Your task to perform on an android device: Search for razer kraken on newegg, select the first entry, and add it to the cart. Image 0: 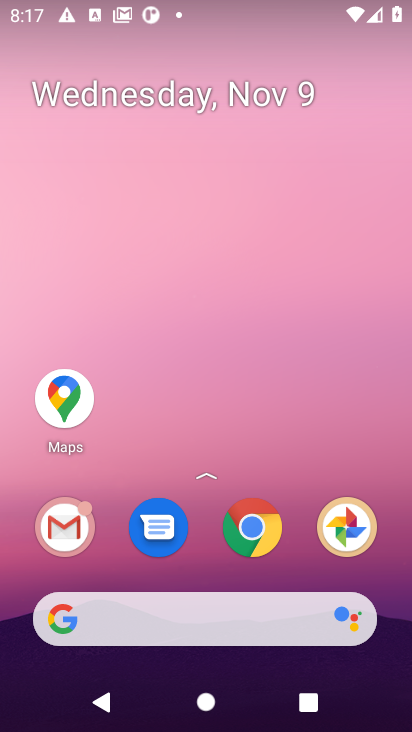
Step 0: click (249, 525)
Your task to perform on an android device: Search for razer kraken on newegg, select the first entry, and add it to the cart. Image 1: 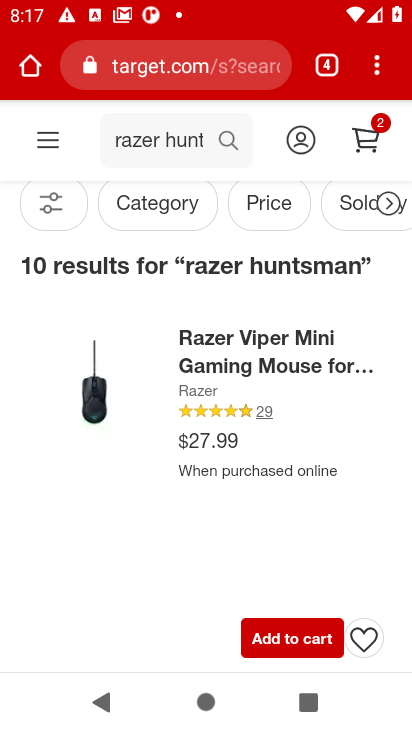
Step 1: click (142, 70)
Your task to perform on an android device: Search for razer kraken on newegg, select the first entry, and add it to the cart. Image 2: 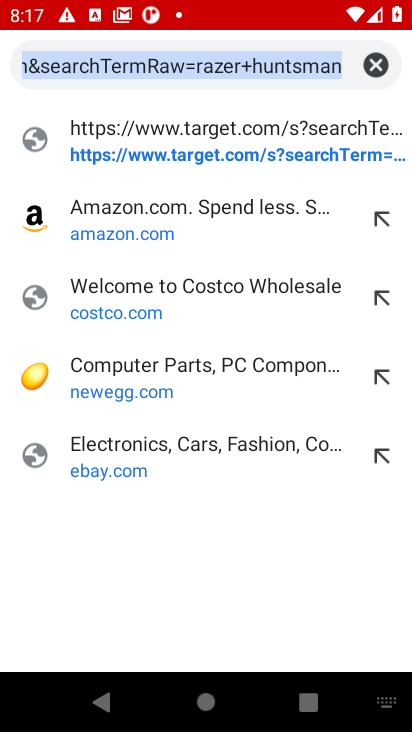
Step 2: click (109, 383)
Your task to perform on an android device: Search for razer kraken on newegg, select the first entry, and add it to the cart. Image 3: 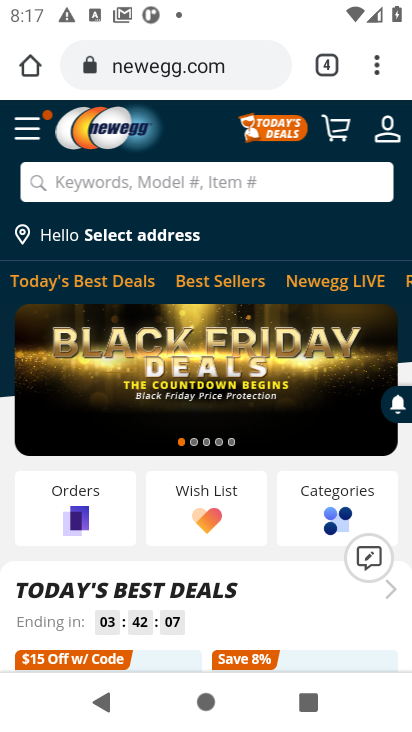
Step 3: click (141, 171)
Your task to perform on an android device: Search for razer kraken on newegg, select the first entry, and add it to the cart. Image 4: 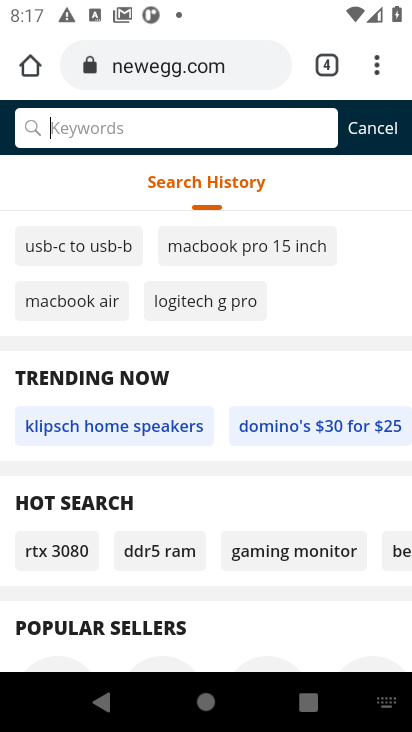
Step 4: type "razer kraken"
Your task to perform on an android device: Search for razer kraken on newegg, select the first entry, and add it to the cart. Image 5: 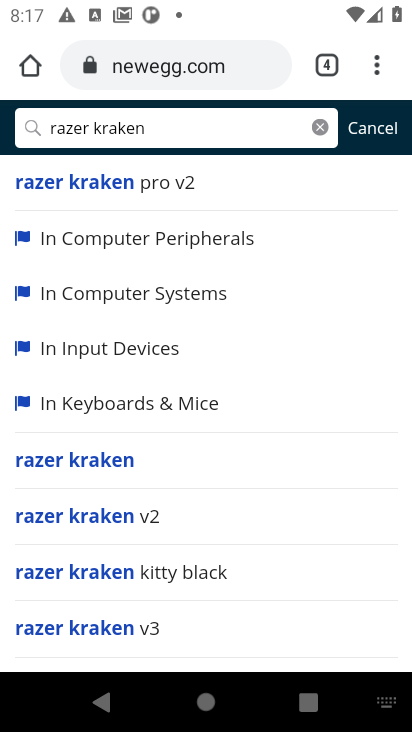
Step 5: click (100, 465)
Your task to perform on an android device: Search for razer kraken on newegg, select the first entry, and add it to the cart. Image 6: 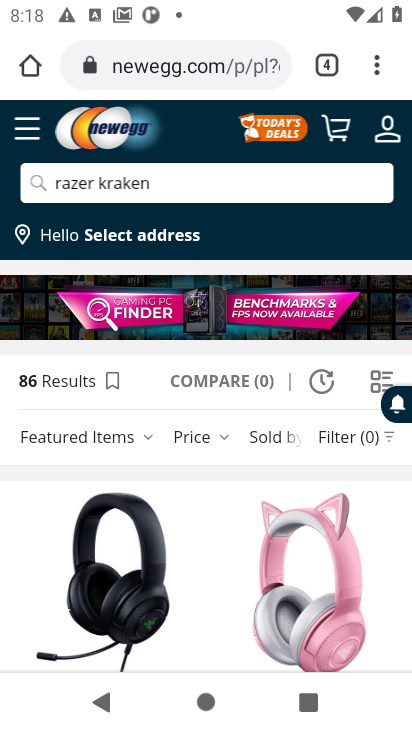
Step 6: drag from (137, 524) to (119, 260)
Your task to perform on an android device: Search for razer kraken on newegg, select the first entry, and add it to the cart. Image 7: 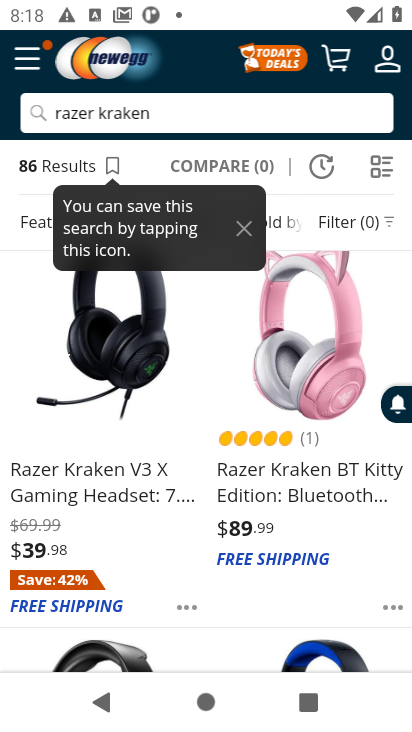
Step 7: click (106, 337)
Your task to perform on an android device: Search for razer kraken on newegg, select the first entry, and add it to the cart. Image 8: 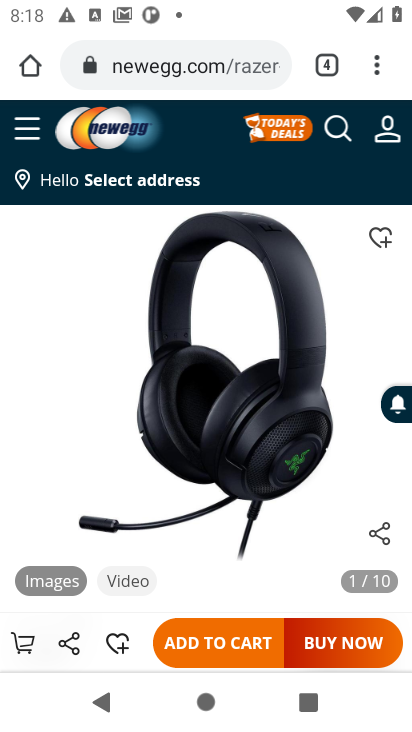
Step 8: click (206, 653)
Your task to perform on an android device: Search for razer kraken on newegg, select the first entry, and add it to the cart. Image 9: 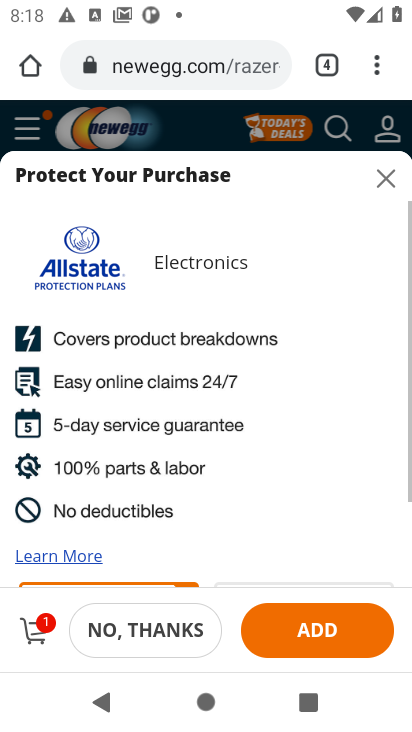
Step 9: task complete